Your task to perform on an android device: check storage Image 0: 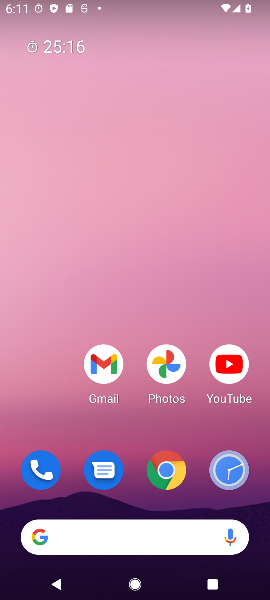
Step 0: drag from (199, 497) to (225, 43)
Your task to perform on an android device: check storage Image 1: 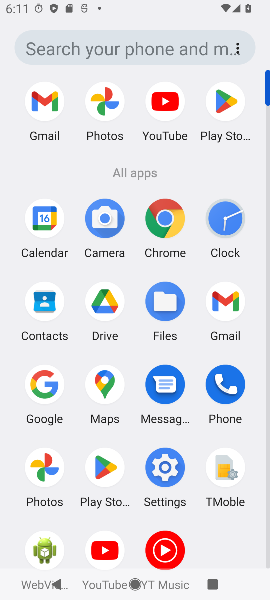
Step 1: click (175, 460)
Your task to perform on an android device: check storage Image 2: 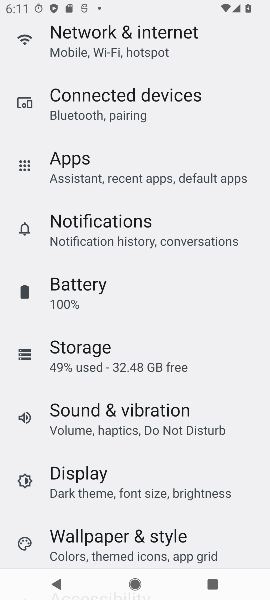
Step 2: click (58, 347)
Your task to perform on an android device: check storage Image 3: 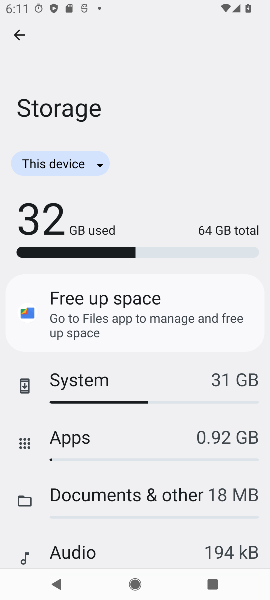
Step 3: task complete